Your task to perform on an android device: turn off data saver in the chrome app Image 0: 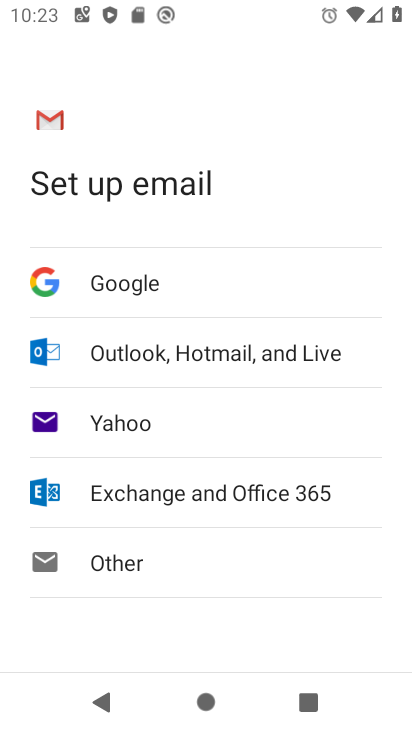
Step 0: press home button
Your task to perform on an android device: turn off data saver in the chrome app Image 1: 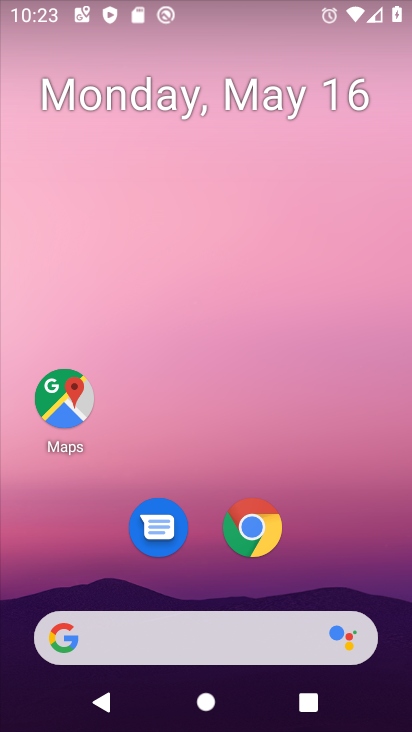
Step 1: click (256, 522)
Your task to perform on an android device: turn off data saver in the chrome app Image 2: 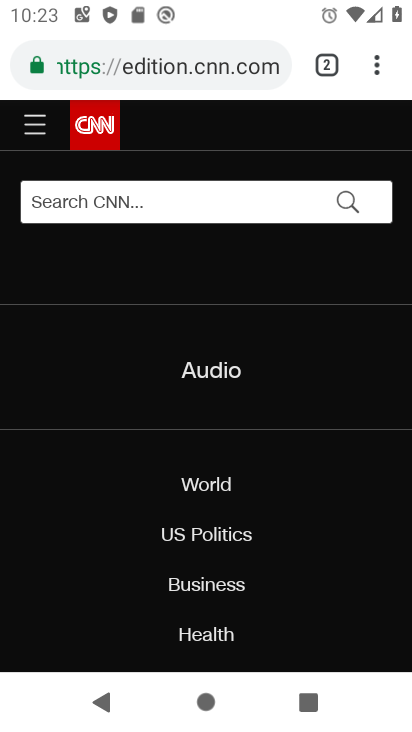
Step 2: click (371, 73)
Your task to perform on an android device: turn off data saver in the chrome app Image 3: 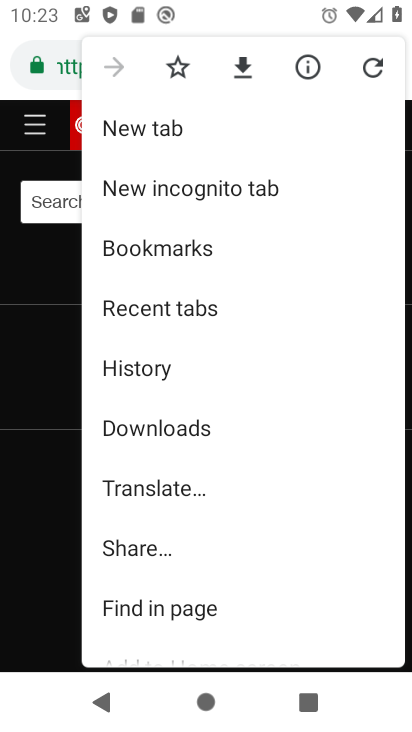
Step 3: drag from (292, 609) to (309, 113)
Your task to perform on an android device: turn off data saver in the chrome app Image 4: 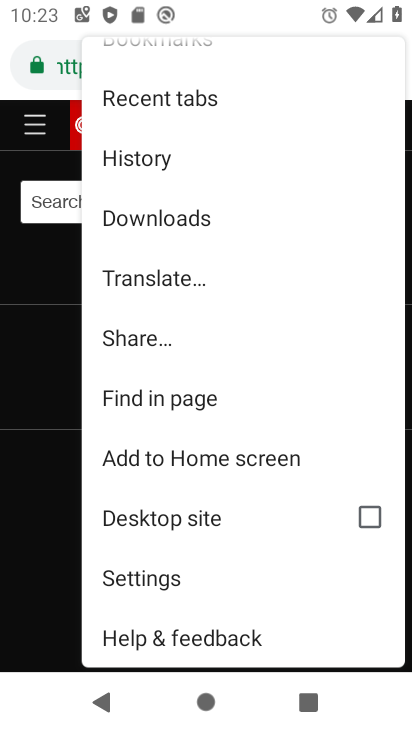
Step 4: click (140, 575)
Your task to perform on an android device: turn off data saver in the chrome app Image 5: 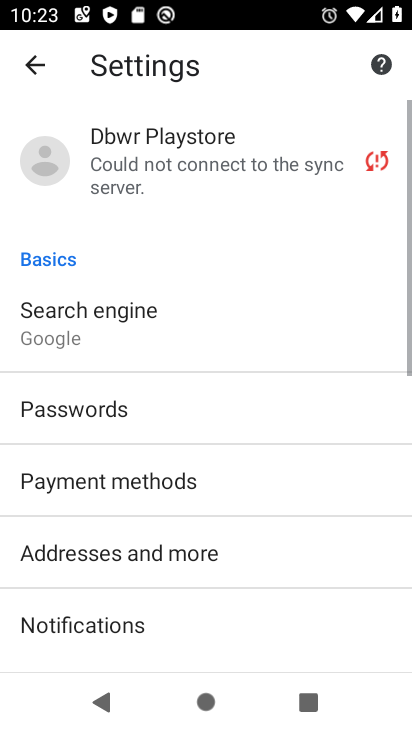
Step 5: drag from (141, 577) to (153, 145)
Your task to perform on an android device: turn off data saver in the chrome app Image 6: 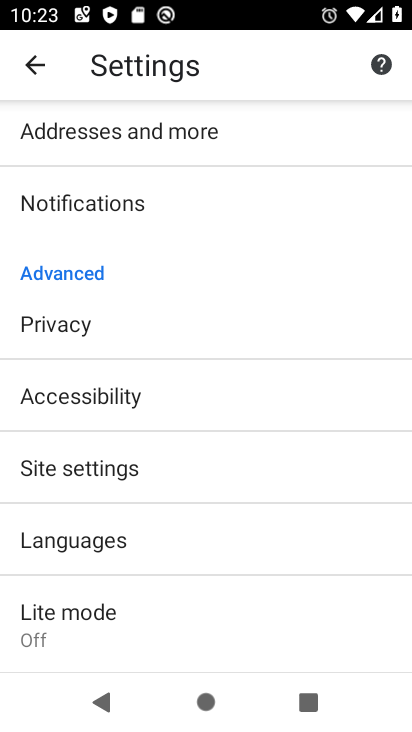
Step 6: click (86, 620)
Your task to perform on an android device: turn off data saver in the chrome app Image 7: 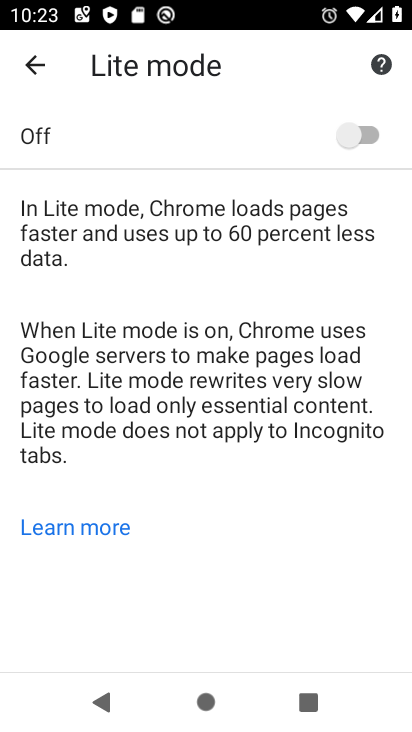
Step 7: task complete